Your task to perform on an android device: move a message to another label in the gmail app Image 0: 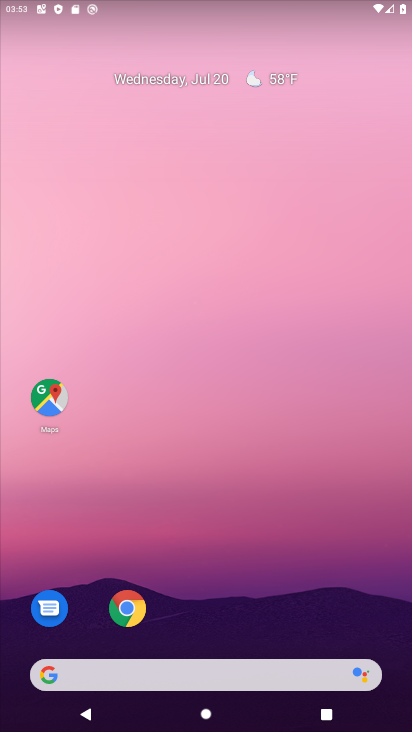
Step 0: drag from (246, 639) to (234, 271)
Your task to perform on an android device: move a message to another label in the gmail app Image 1: 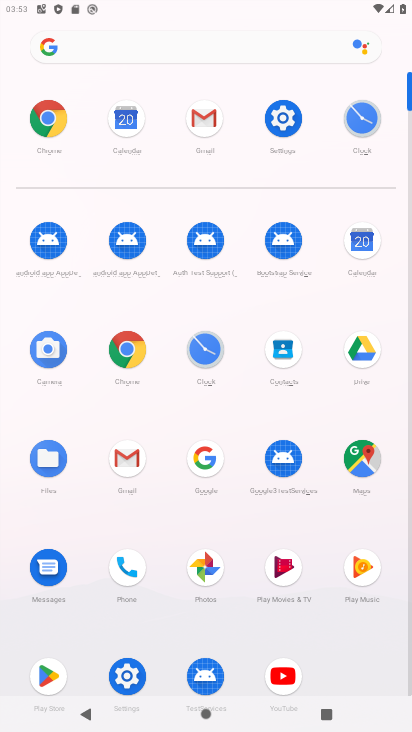
Step 1: click (219, 135)
Your task to perform on an android device: move a message to another label in the gmail app Image 2: 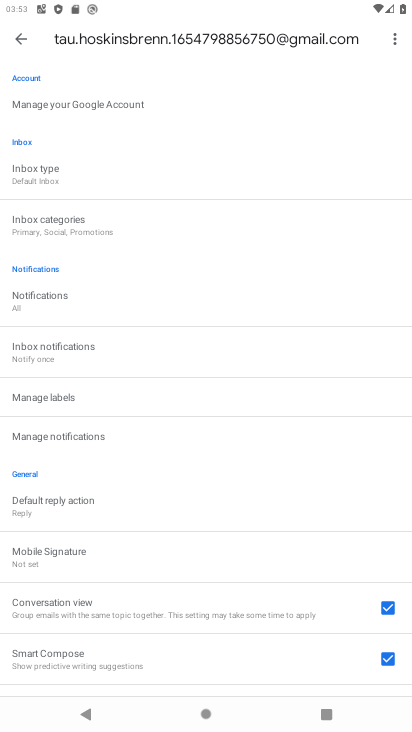
Step 2: task complete